Your task to perform on an android device: Open Amazon Image 0: 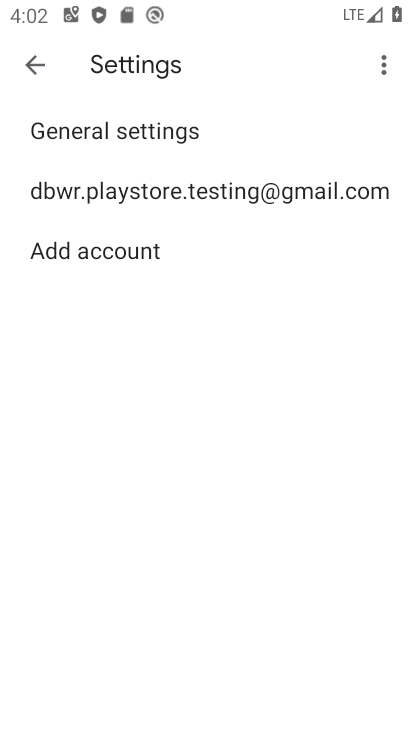
Step 0: press home button
Your task to perform on an android device: Open Amazon Image 1: 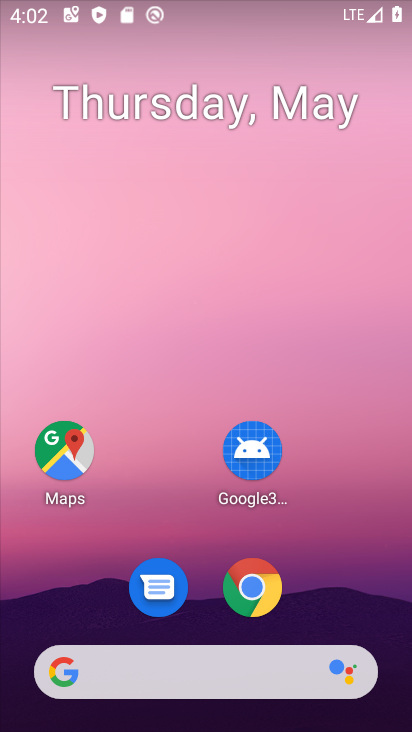
Step 1: click (269, 593)
Your task to perform on an android device: Open Amazon Image 2: 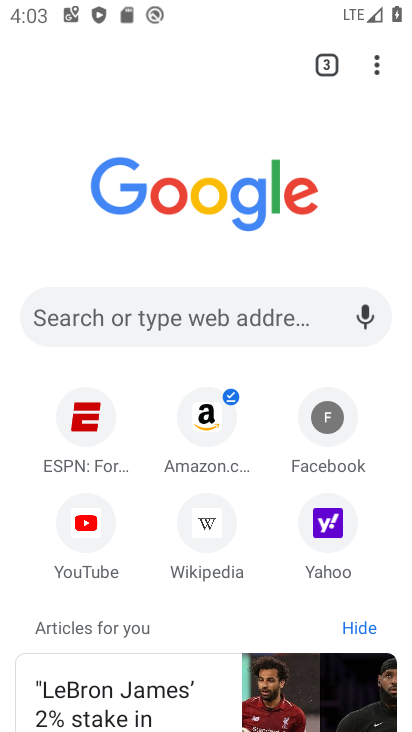
Step 2: click (230, 408)
Your task to perform on an android device: Open Amazon Image 3: 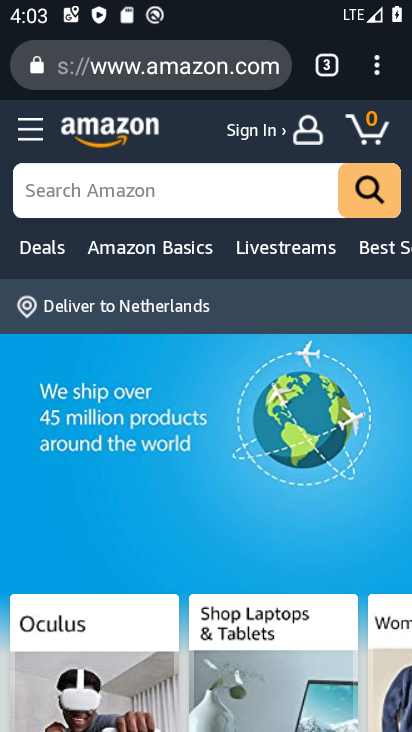
Step 3: task complete